Your task to perform on an android device: set an alarm Image 0: 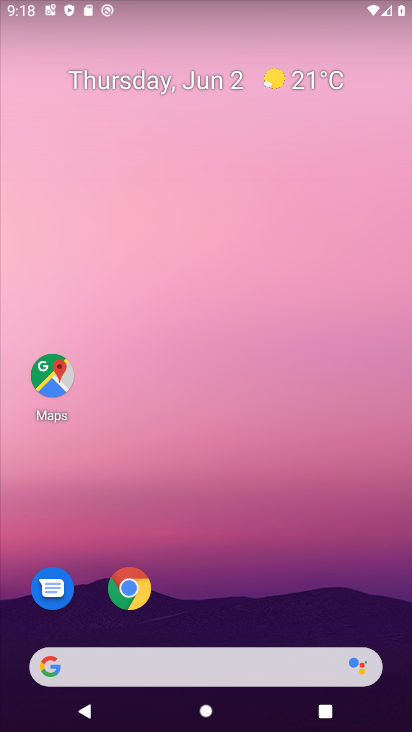
Step 0: drag from (266, 600) to (209, 215)
Your task to perform on an android device: set an alarm Image 1: 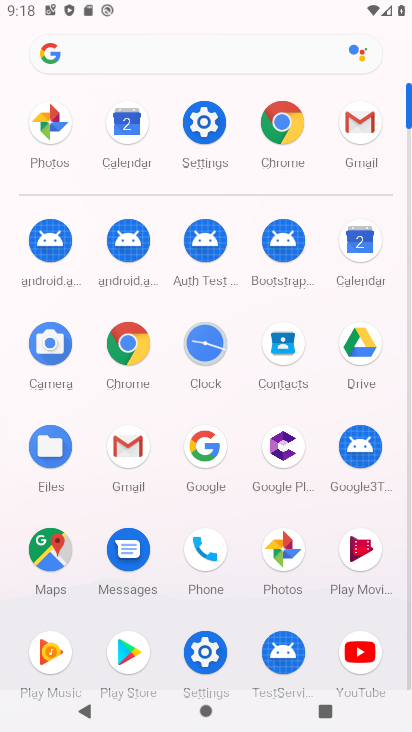
Step 1: click (202, 342)
Your task to perform on an android device: set an alarm Image 2: 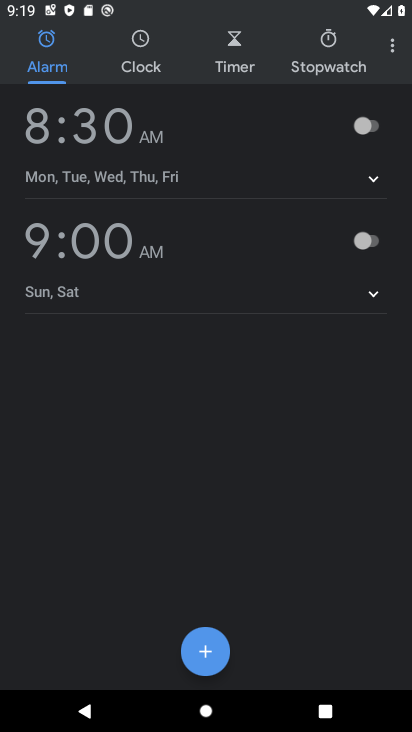
Step 2: click (210, 656)
Your task to perform on an android device: set an alarm Image 3: 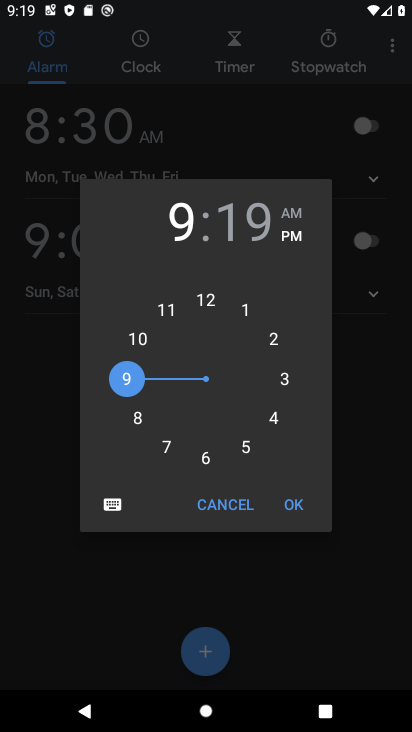
Step 3: click (201, 315)
Your task to perform on an android device: set an alarm Image 4: 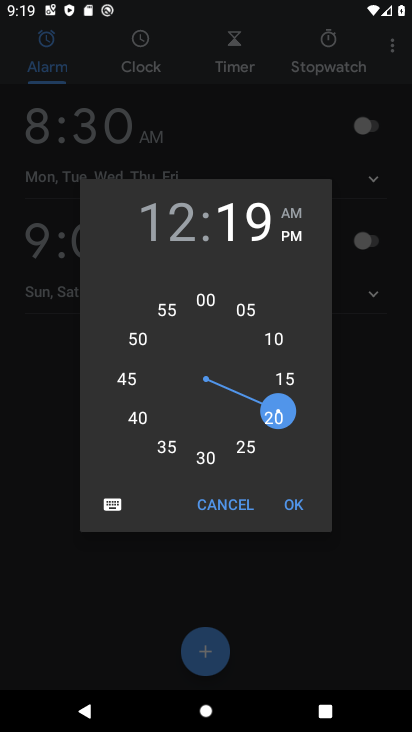
Step 4: click (298, 515)
Your task to perform on an android device: set an alarm Image 5: 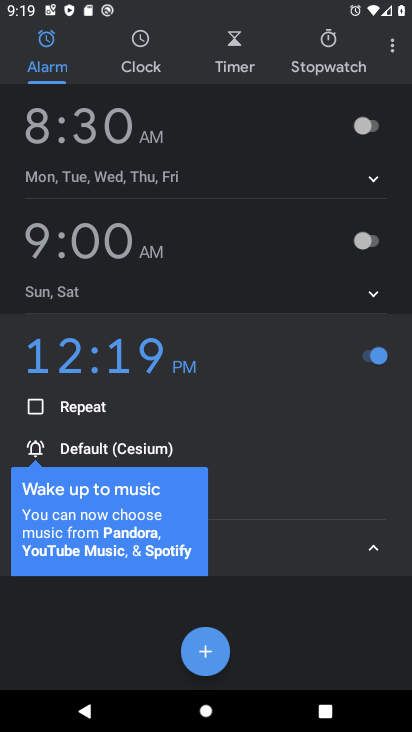
Step 5: task complete